Your task to perform on an android device: See recent photos Image 0: 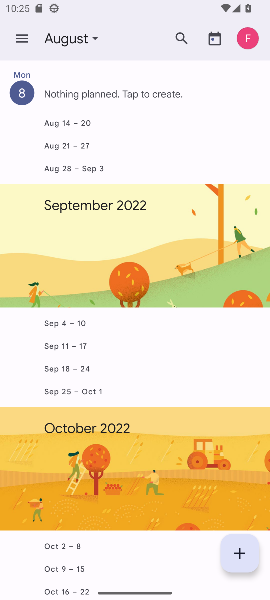
Step 0: press home button
Your task to perform on an android device: See recent photos Image 1: 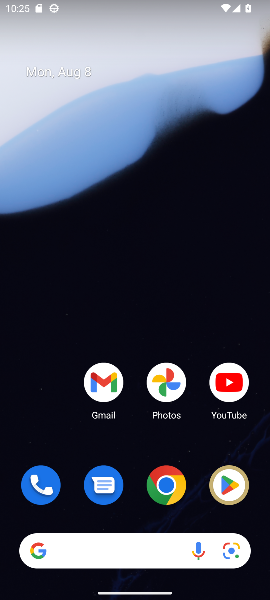
Step 1: click (168, 389)
Your task to perform on an android device: See recent photos Image 2: 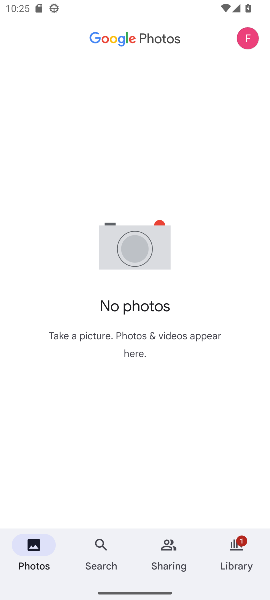
Step 2: click (29, 545)
Your task to perform on an android device: See recent photos Image 3: 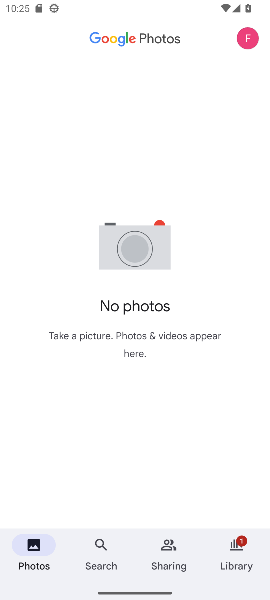
Step 3: task complete